Your task to perform on an android device: choose inbox layout in the gmail app Image 0: 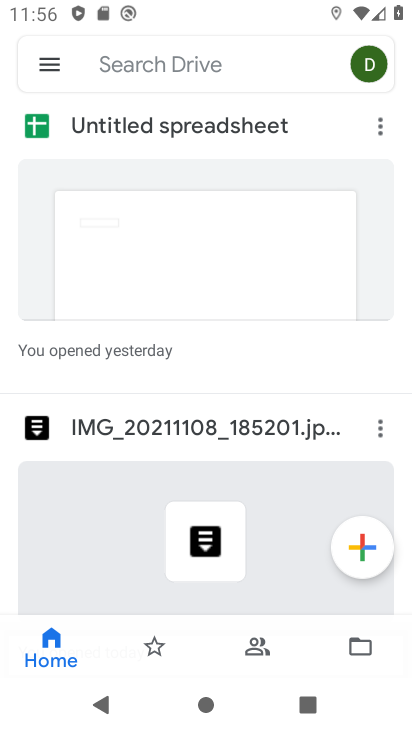
Step 0: press home button
Your task to perform on an android device: choose inbox layout in the gmail app Image 1: 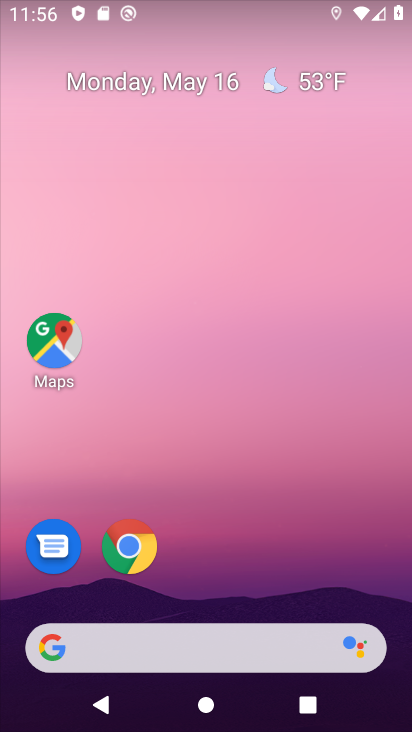
Step 1: drag from (251, 569) to (230, 116)
Your task to perform on an android device: choose inbox layout in the gmail app Image 2: 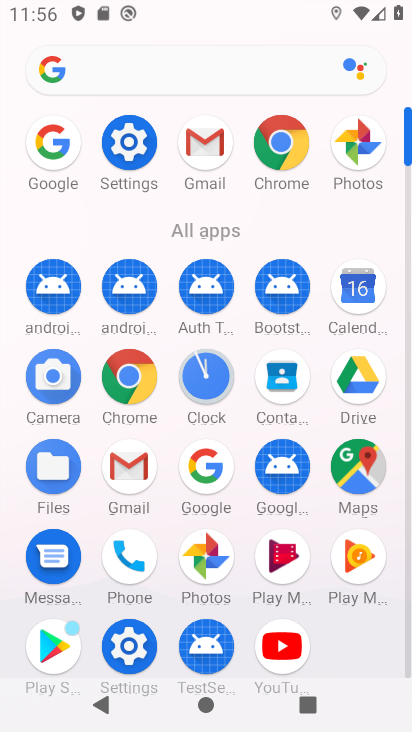
Step 2: click (207, 147)
Your task to perform on an android device: choose inbox layout in the gmail app Image 3: 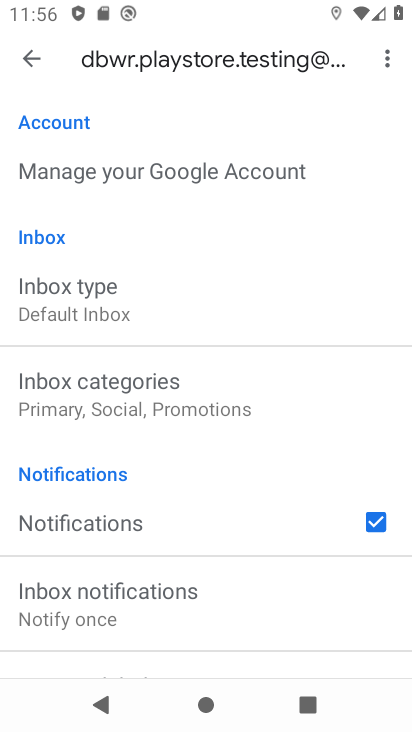
Step 3: press back button
Your task to perform on an android device: choose inbox layout in the gmail app Image 4: 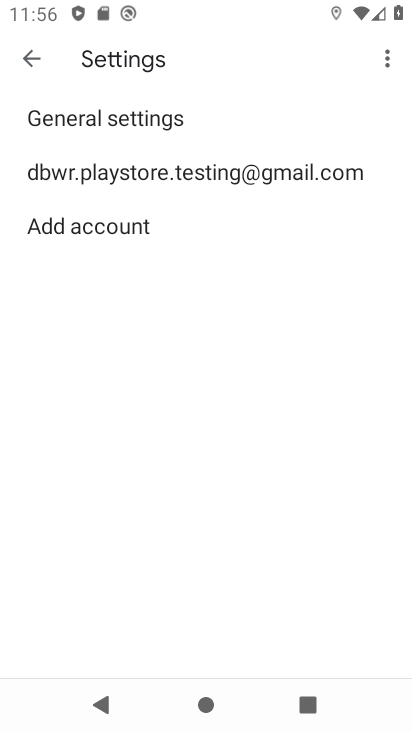
Step 4: press back button
Your task to perform on an android device: choose inbox layout in the gmail app Image 5: 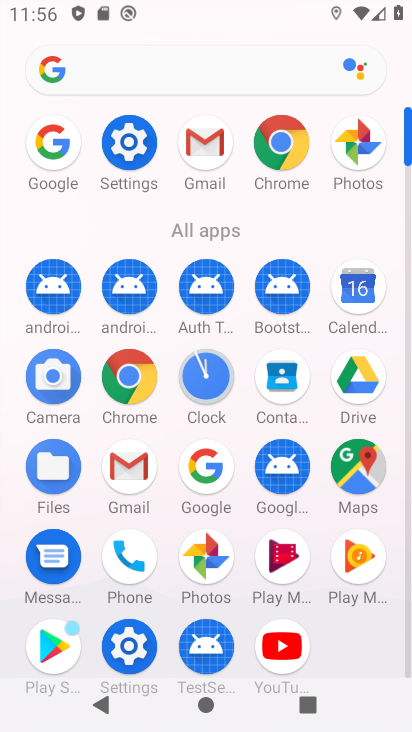
Step 5: click (136, 460)
Your task to perform on an android device: choose inbox layout in the gmail app Image 6: 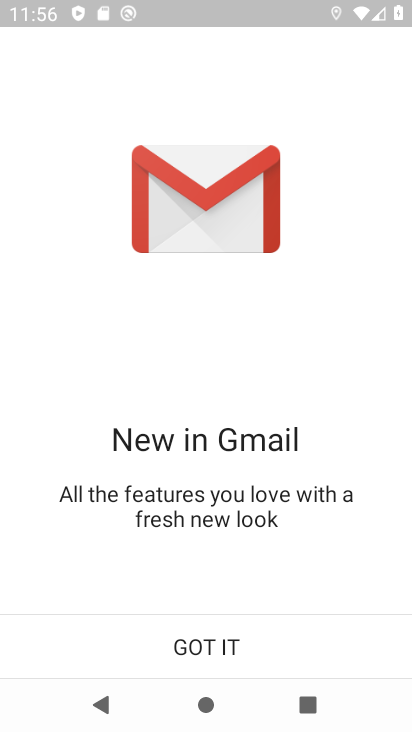
Step 6: click (222, 646)
Your task to perform on an android device: choose inbox layout in the gmail app Image 7: 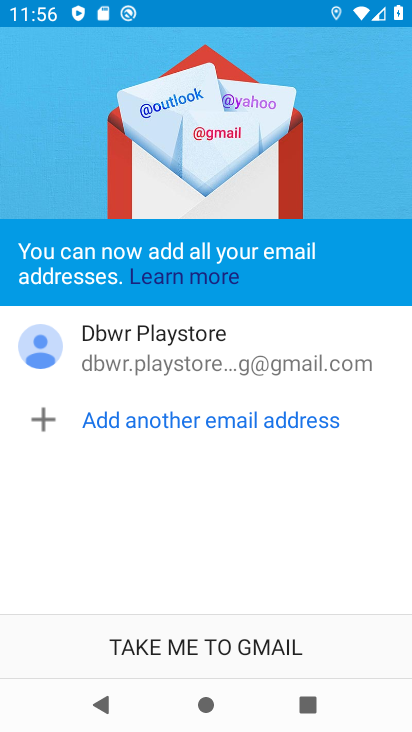
Step 7: click (214, 641)
Your task to perform on an android device: choose inbox layout in the gmail app Image 8: 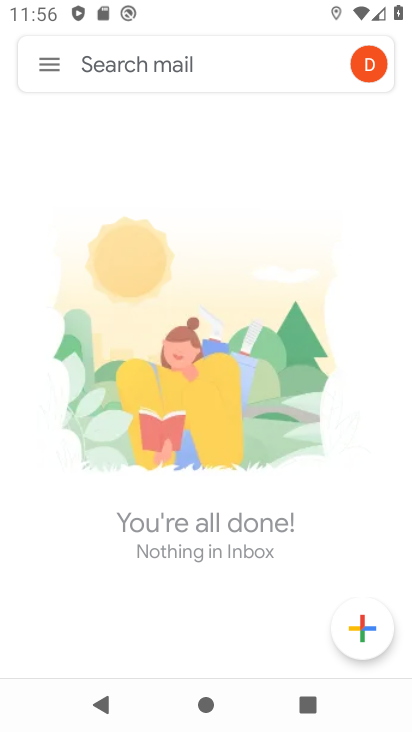
Step 8: click (49, 64)
Your task to perform on an android device: choose inbox layout in the gmail app Image 9: 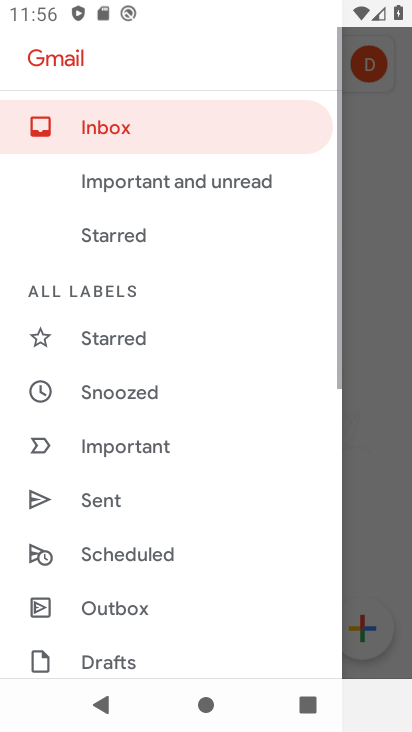
Step 9: drag from (176, 543) to (146, 165)
Your task to perform on an android device: choose inbox layout in the gmail app Image 10: 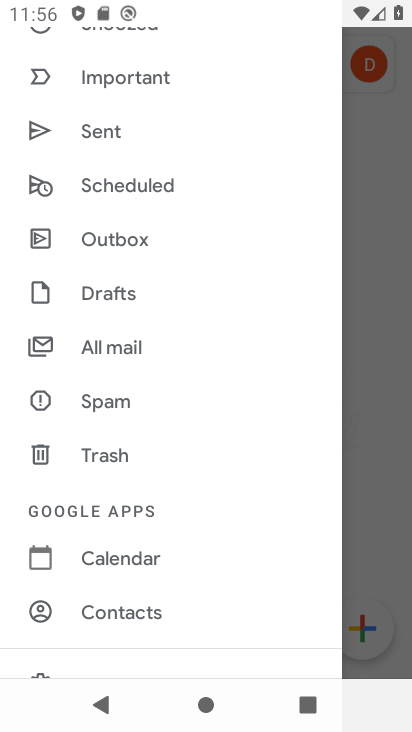
Step 10: drag from (195, 625) to (211, 291)
Your task to perform on an android device: choose inbox layout in the gmail app Image 11: 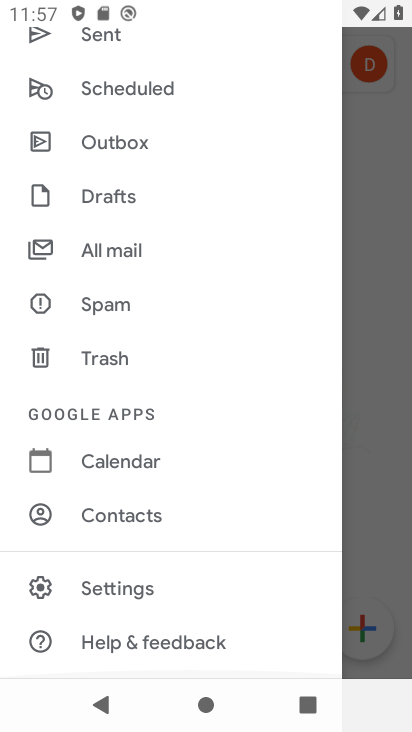
Step 11: click (164, 574)
Your task to perform on an android device: choose inbox layout in the gmail app Image 12: 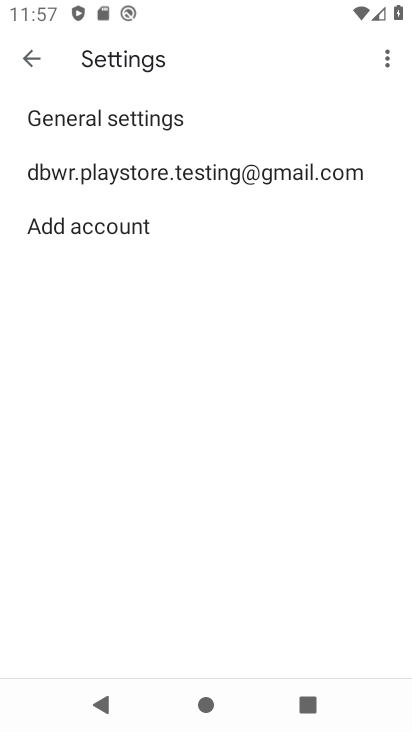
Step 12: click (169, 172)
Your task to perform on an android device: choose inbox layout in the gmail app Image 13: 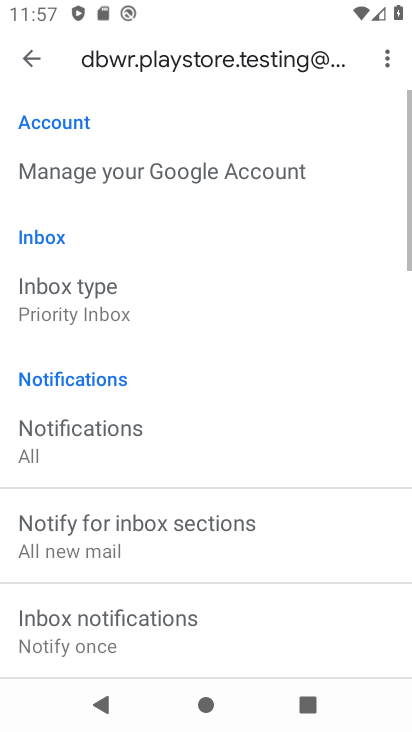
Step 13: click (89, 313)
Your task to perform on an android device: choose inbox layout in the gmail app Image 14: 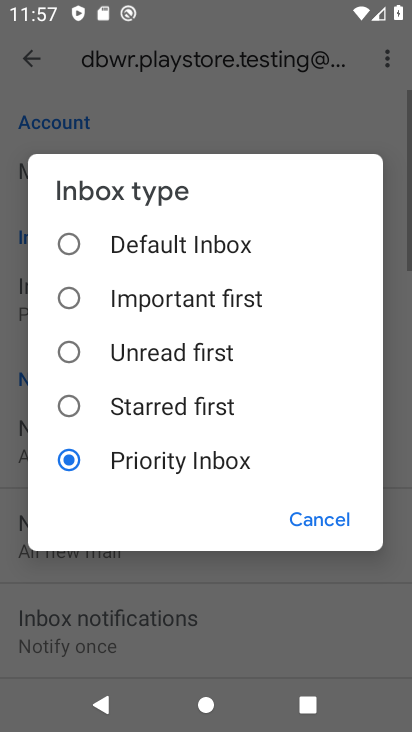
Step 14: click (71, 243)
Your task to perform on an android device: choose inbox layout in the gmail app Image 15: 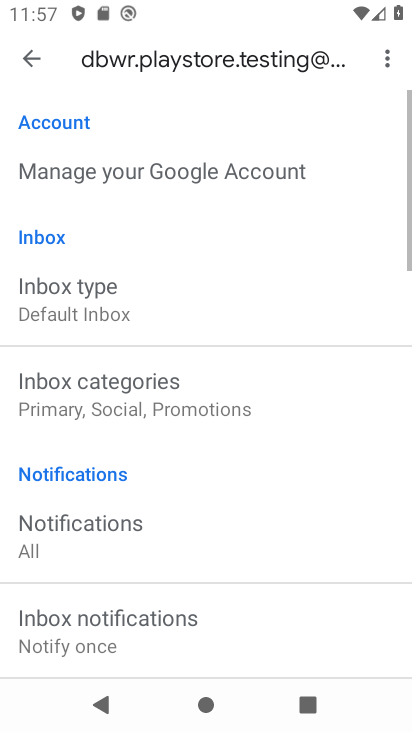
Step 15: task complete